Your task to perform on an android device: change the clock display to analog Image 0: 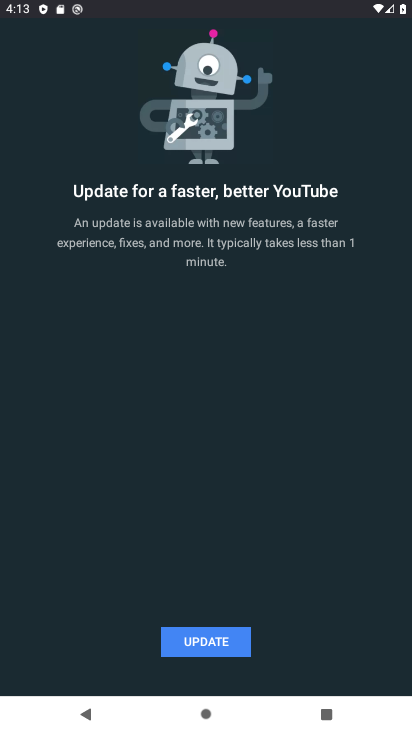
Step 0: press back button
Your task to perform on an android device: change the clock display to analog Image 1: 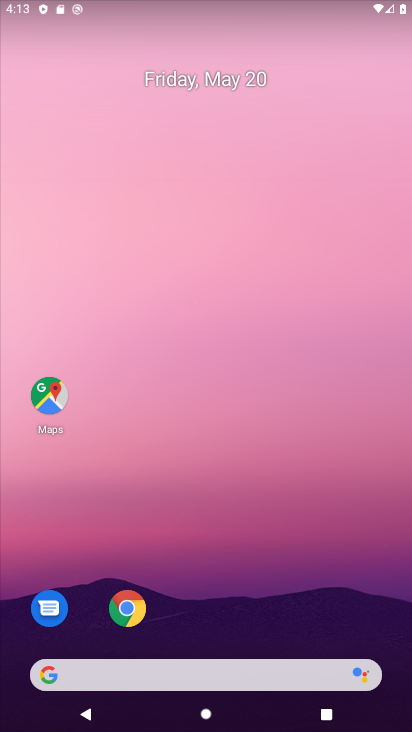
Step 1: drag from (226, 650) to (100, 65)
Your task to perform on an android device: change the clock display to analog Image 2: 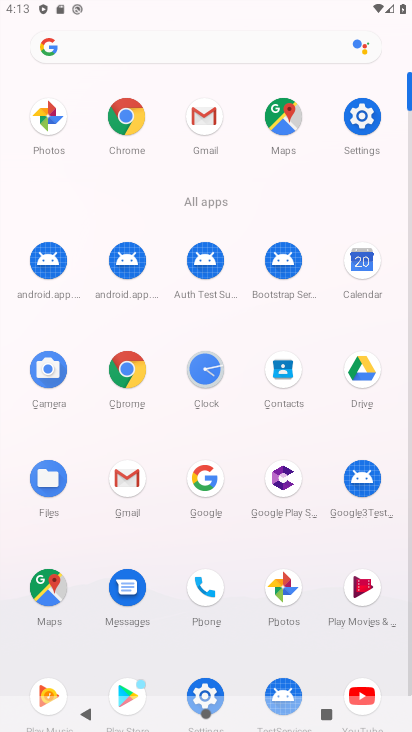
Step 2: drag from (207, 387) to (271, 387)
Your task to perform on an android device: change the clock display to analog Image 3: 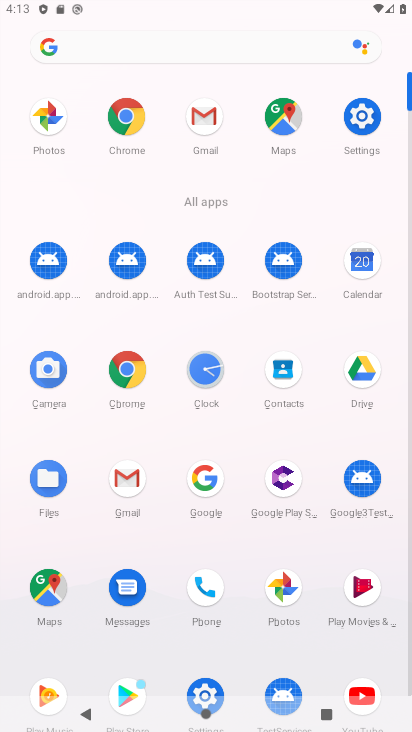
Step 3: click (176, 376)
Your task to perform on an android device: change the clock display to analog Image 4: 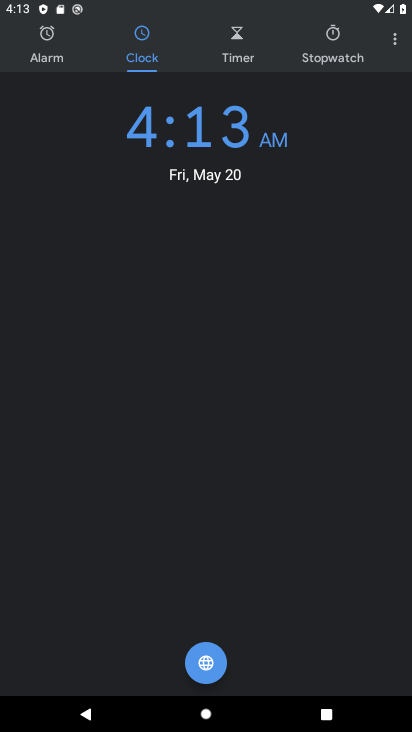
Step 4: click (390, 43)
Your task to perform on an android device: change the clock display to analog Image 5: 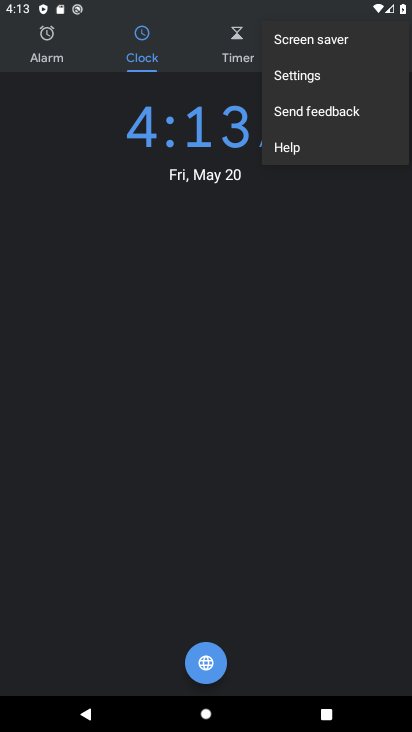
Step 5: click (313, 76)
Your task to perform on an android device: change the clock display to analog Image 6: 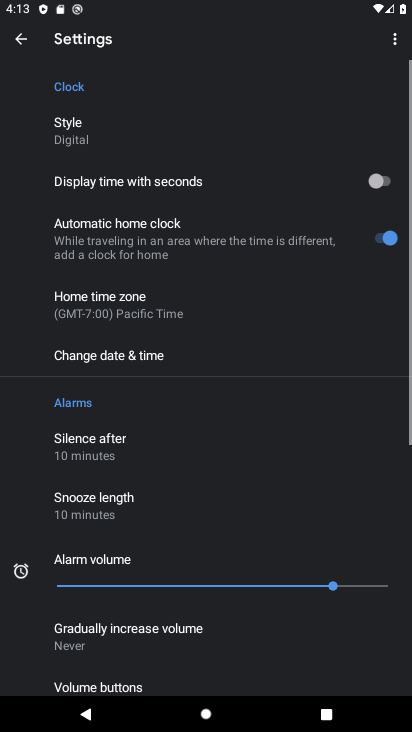
Step 6: click (84, 125)
Your task to perform on an android device: change the clock display to analog Image 7: 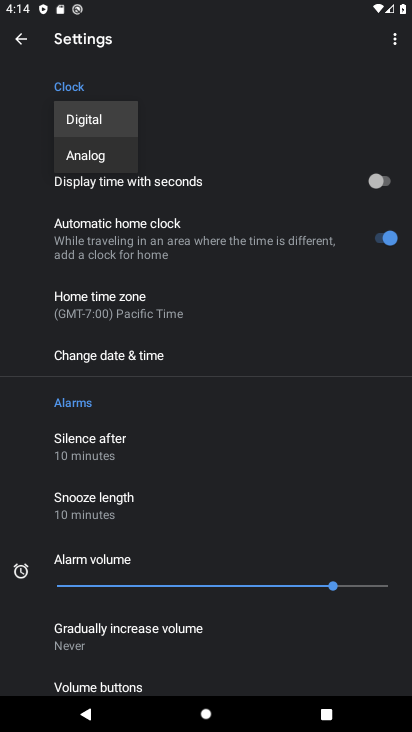
Step 7: click (97, 152)
Your task to perform on an android device: change the clock display to analog Image 8: 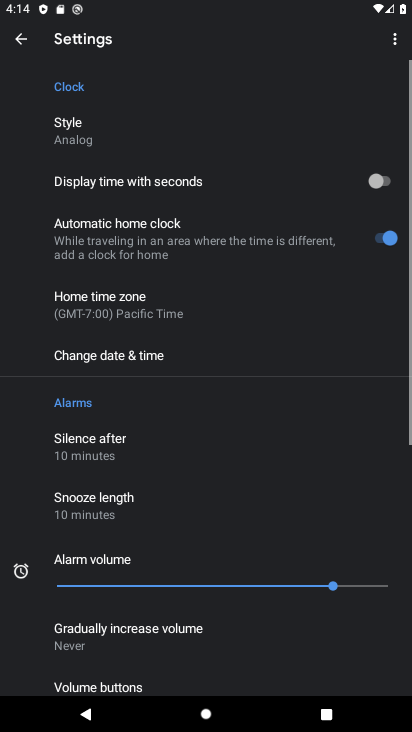
Step 8: task complete